Your task to perform on an android device: make emails show in primary in the gmail app Image 0: 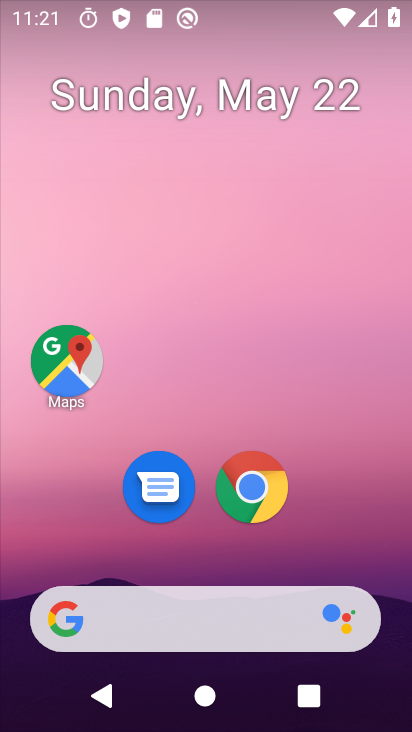
Step 0: drag from (360, 532) to (319, 196)
Your task to perform on an android device: make emails show in primary in the gmail app Image 1: 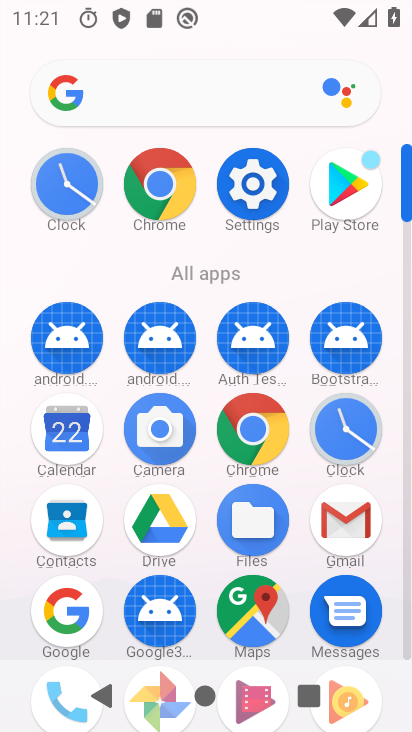
Step 1: click (346, 513)
Your task to perform on an android device: make emails show in primary in the gmail app Image 2: 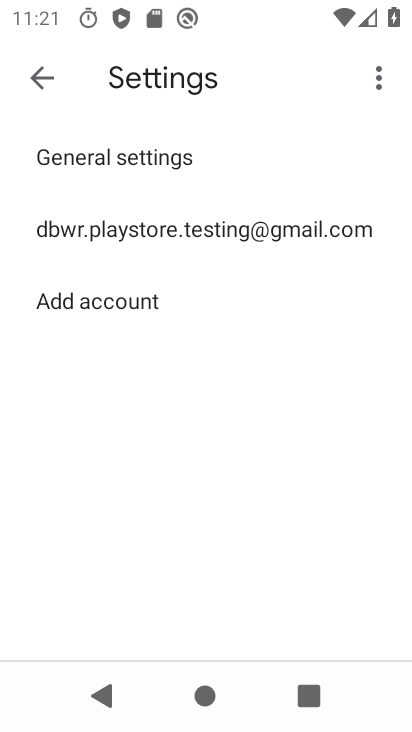
Step 2: click (170, 216)
Your task to perform on an android device: make emails show in primary in the gmail app Image 3: 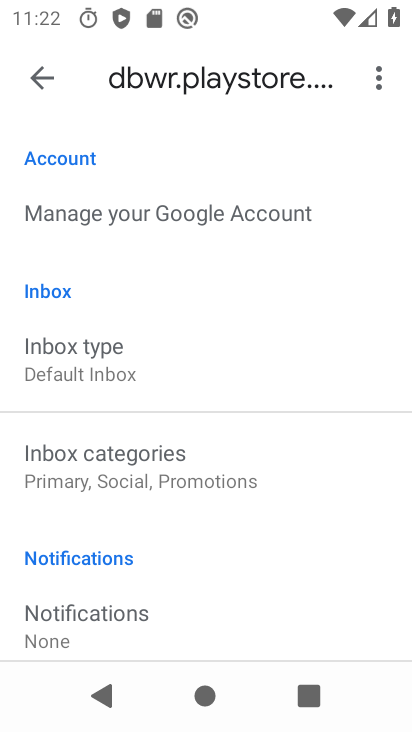
Step 3: drag from (183, 207) to (190, 461)
Your task to perform on an android device: make emails show in primary in the gmail app Image 4: 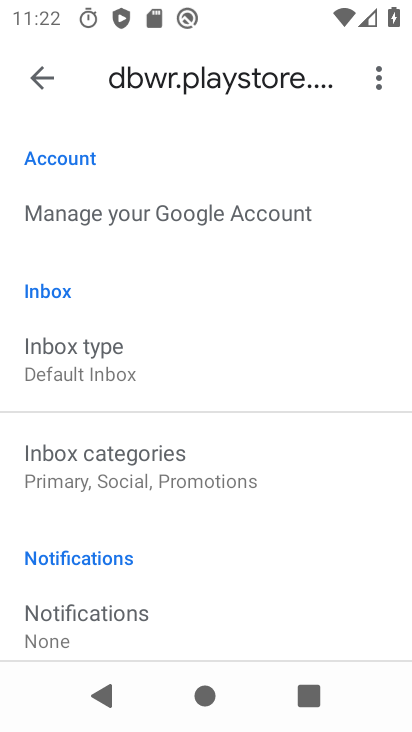
Step 4: drag from (143, 577) to (177, 329)
Your task to perform on an android device: make emails show in primary in the gmail app Image 5: 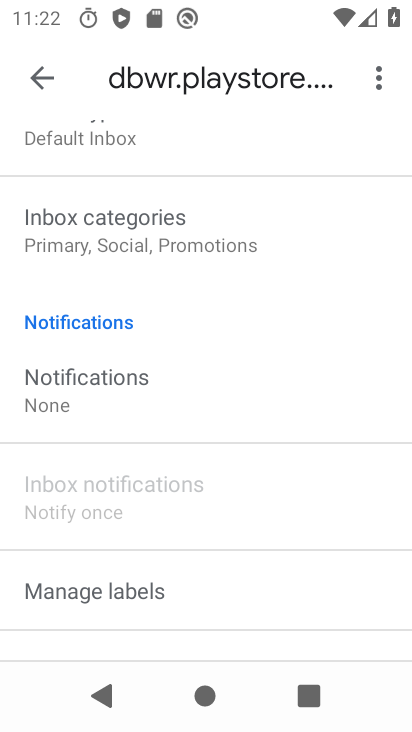
Step 5: click (139, 238)
Your task to perform on an android device: make emails show in primary in the gmail app Image 6: 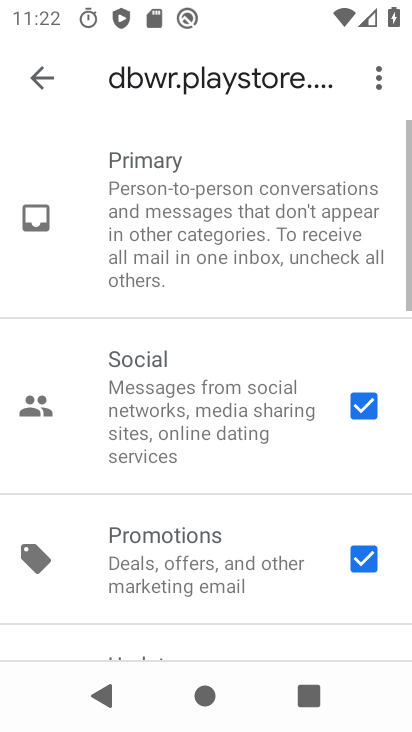
Step 6: task complete